Your task to perform on an android device: toggle translation in the chrome app Image 0: 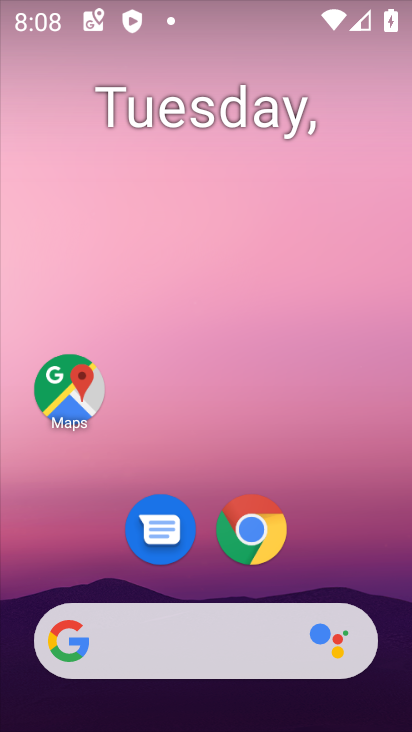
Step 0: click (269, 546)
Your task to perform on an android device: toggle translation in the chrome app Image 1: 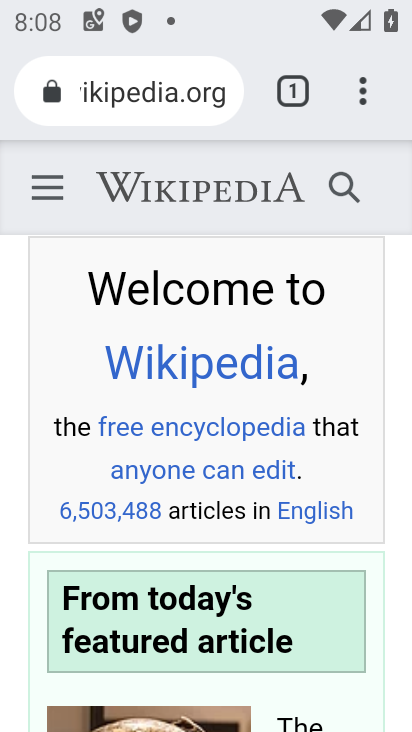
Step 1: click (360, 99)
Your task to perform on an android device: toggle translation in the chrome app Image 2: 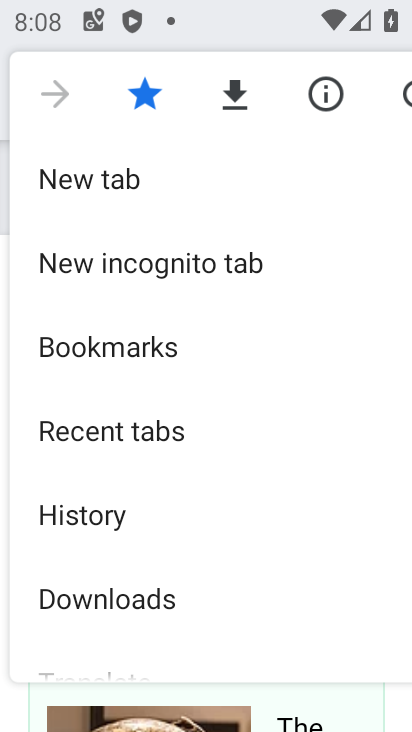
Step 2: drag from (132, 526) to (157, 326)
Your task to perform on an android device: toggle translation in the chrome app Image 3: 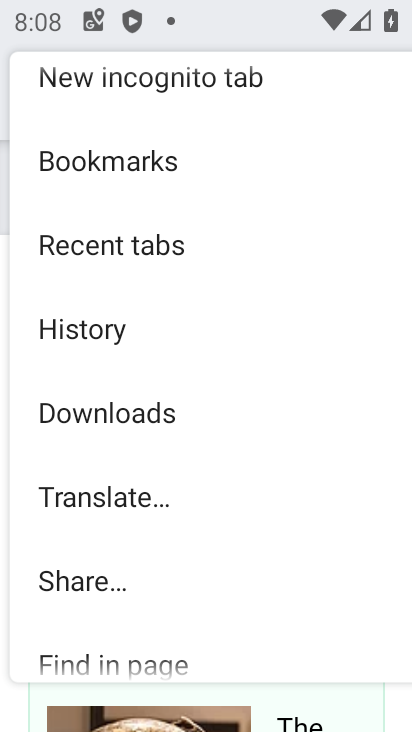
Step 3: click (117, 501)
Your task to perform on an android device: toggle translation in the chrome app Image 4: 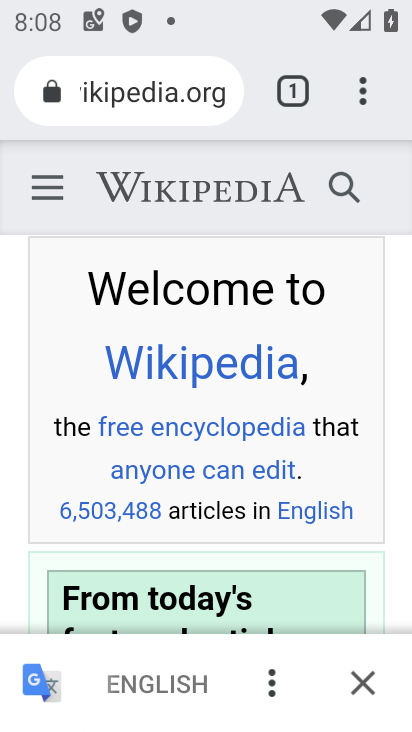
Step 4: click (264, 663)
Your task to perform on an android device: toggle translation in the chrome app Image 5: 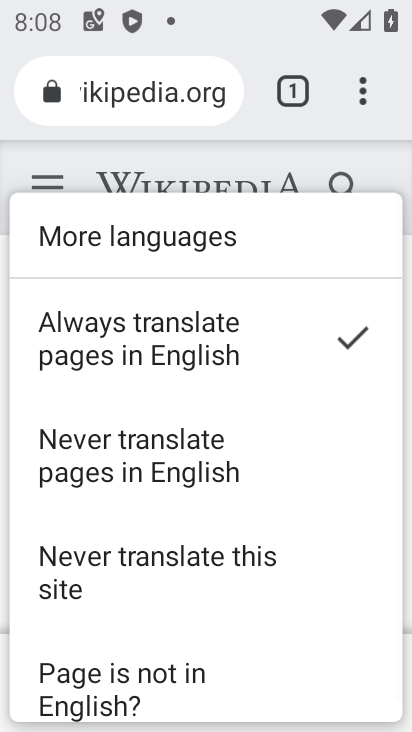
Step 5: click (173, 550)
Your task to perform on an android device: toggle translation in the chrome app Image 6: 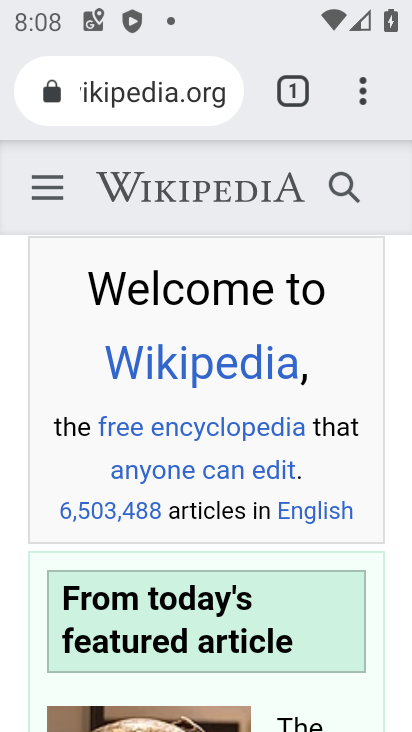
Step 6: task complete